Your task to perform on an android device: What's the weather? Image 0: 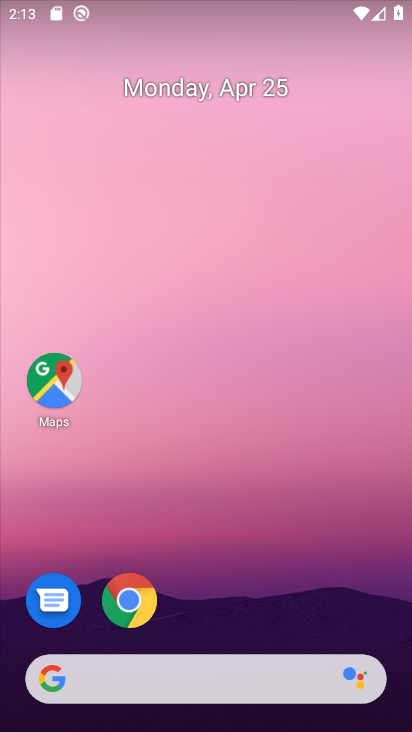
Step 0: drag from (0, 277) to (410, 260)
Your task to perform on an android device: What's the weather? Image 1: 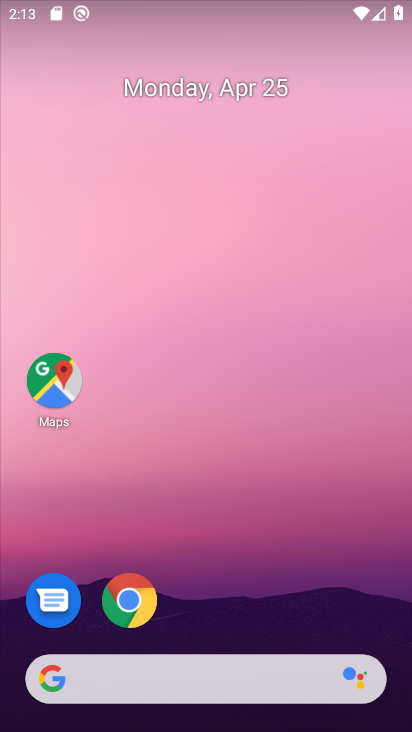
Step 1: drag from (1, 272) to (410, 153)
Your task to perform on an android device: What's the weather? Image 2: 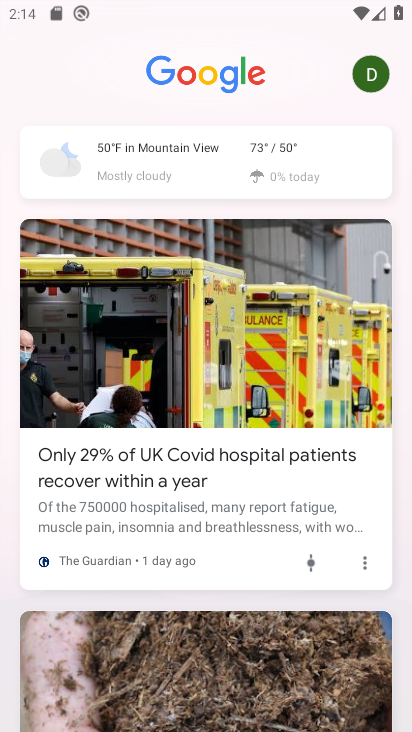
Step 2: click (187, 165)
Your task to perform on an android device: What's the weather? Image 3: 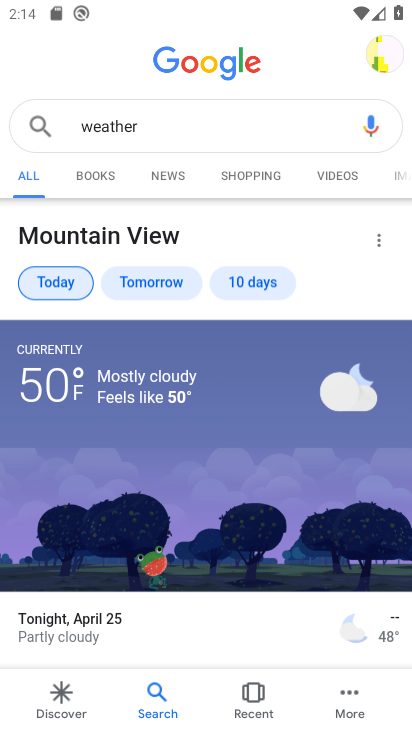
Step 3: task complete